Your task to perform on an android device: Go to Google maps Image 0: 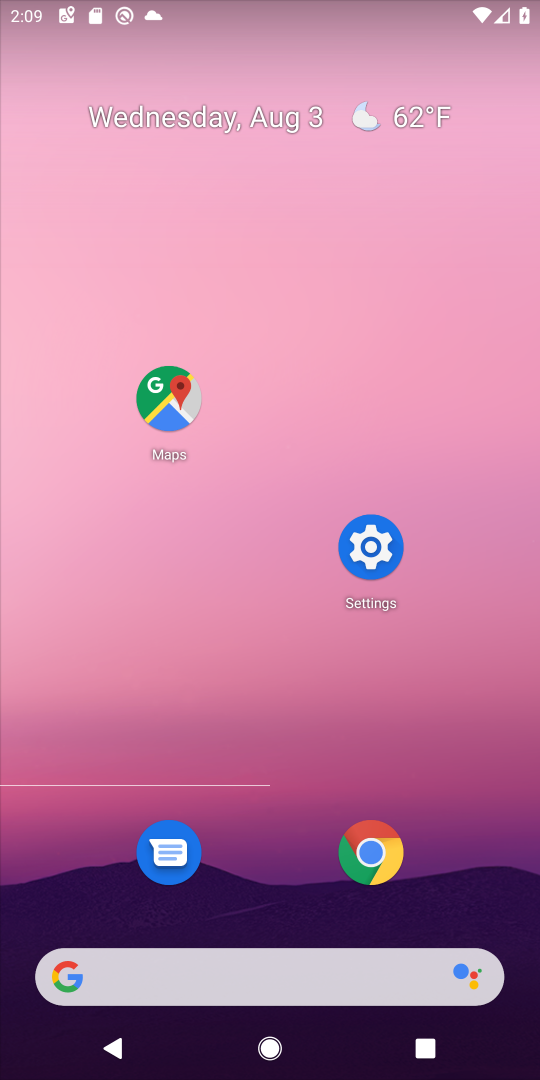
Step 0: press home button
Your task to perform on an android device: Go to Google maps Image 1: 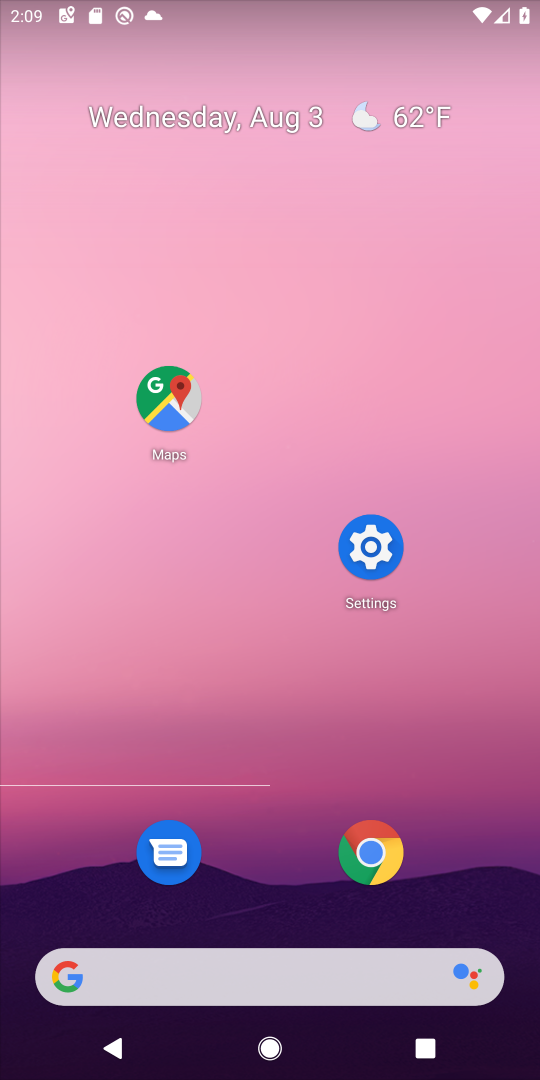
Step 1: click (171, 400)
Your task to perform on an android device: Go to Google maps Image 2: 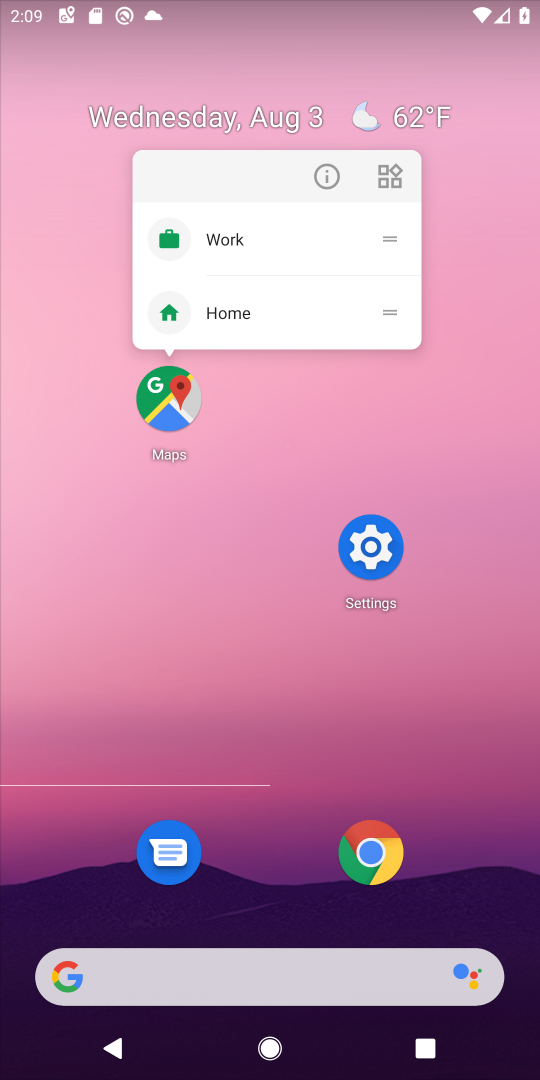
Step 2: click (166, 400)
Your task to perform on an android device: Go to Google maps Image 3: 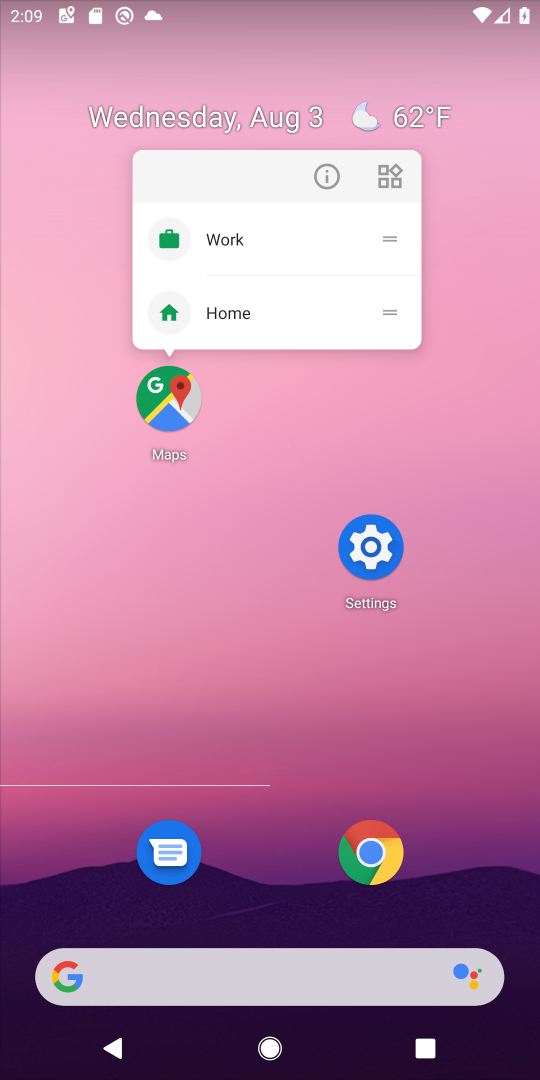
Step 3: click (166, 400)
Your task to perform on an android device: Go to Google maps Image 4: 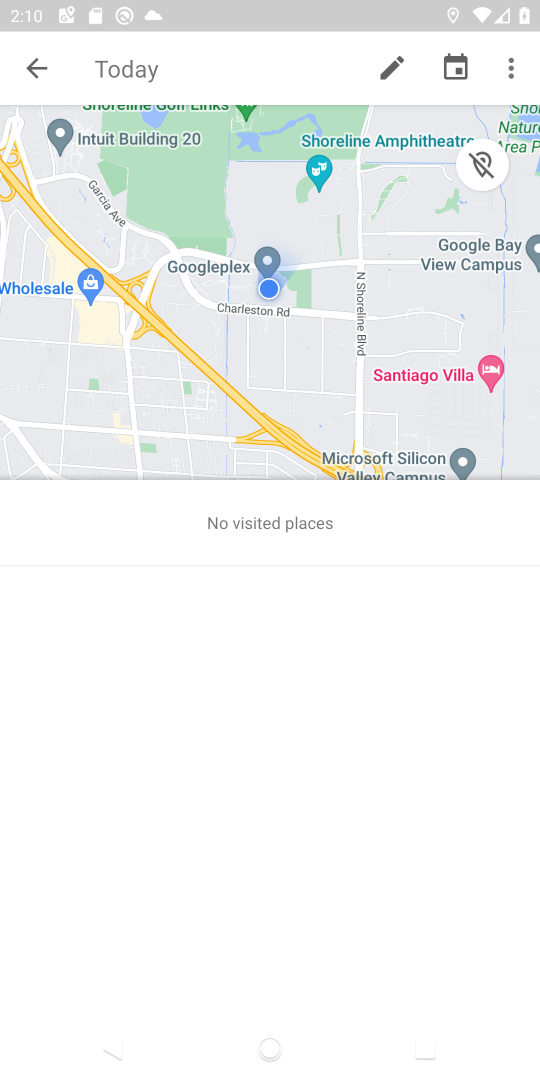
Step 4: click (40, 66)
Your task to perform on an android device: Go to Google maps Image 5: 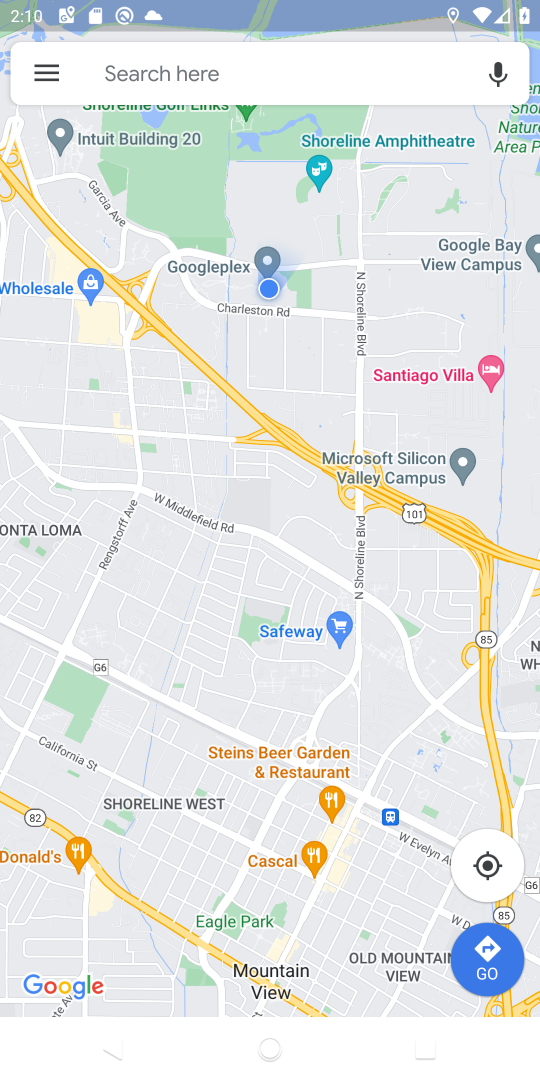
Step 5: task complete